Your task to perform on an android device: Open battery settings Image 0: 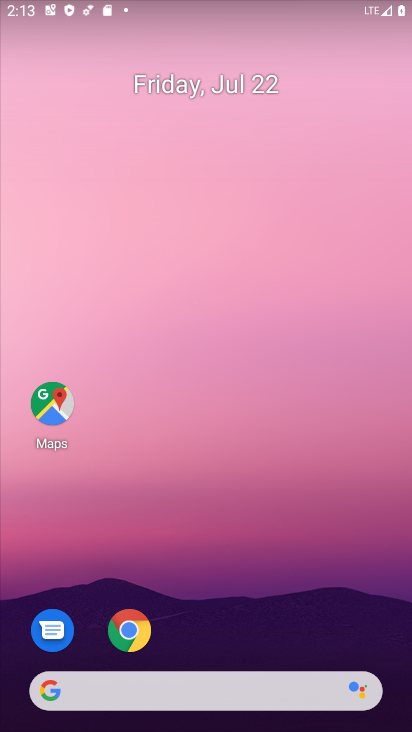
Step 0: click (267, 84)
Your task to perform on an android device: Open battery settings Image 1: 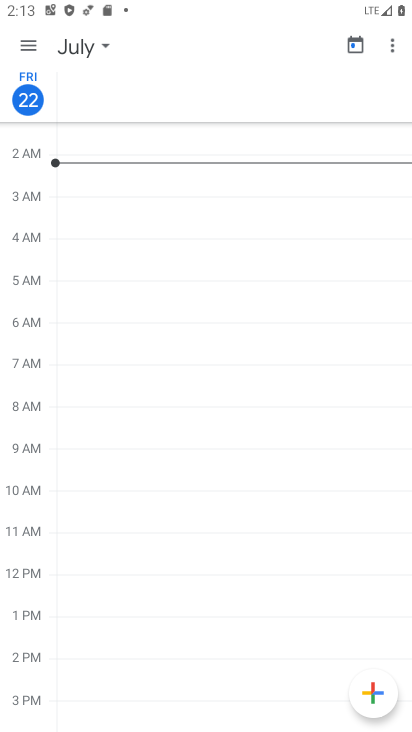
Step 1: press home button
Your task to perform on an android device: Open battery settings Image 2: 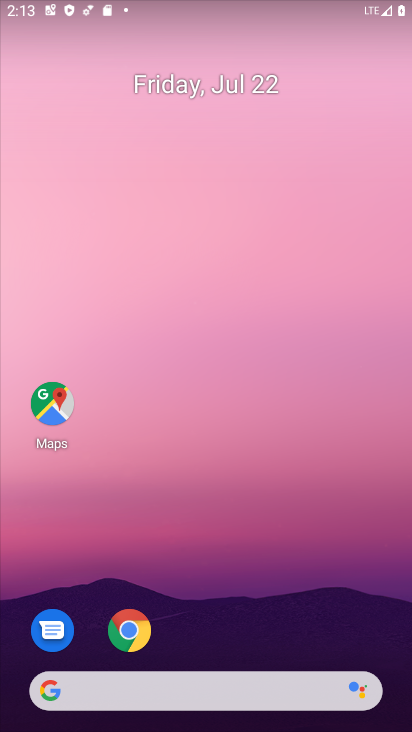
Step 2: drag from (197, 654) to (134, 17)
Your task to perform on an android device: Open battery settings Image 3: 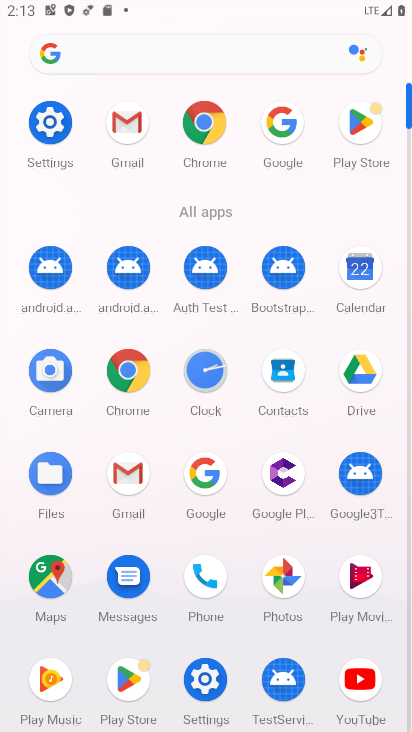
Step 3: click (194, 662)
Your task to perform on an android device: Open battery settings Image 4: 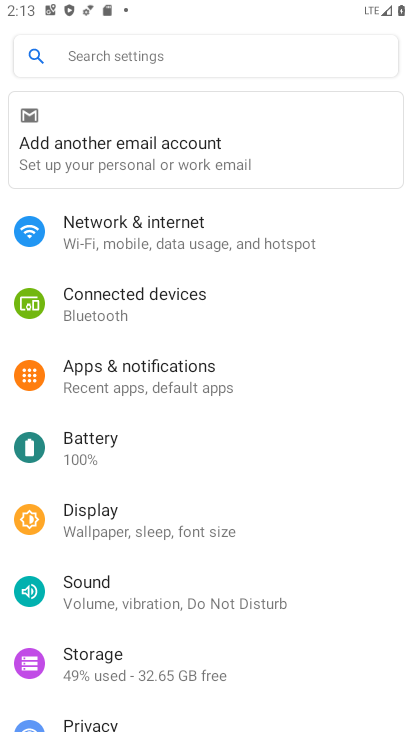
Step 4: click (88, 444)
Your task to perform on an android device: Open battery settings Image 5: 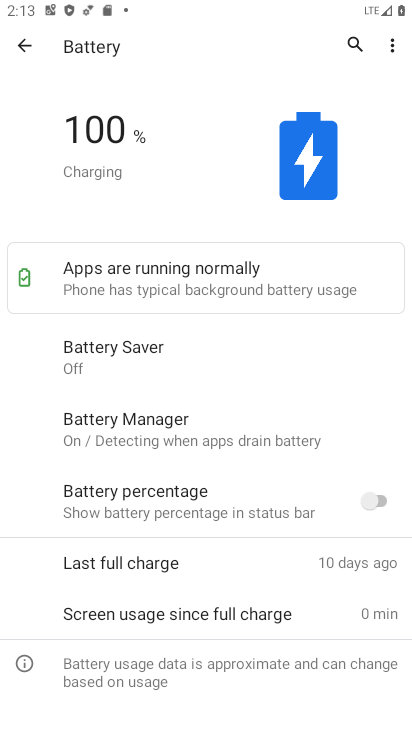
Step 5: task complete